Your task to perform on an android device: Open display settings Image 0: 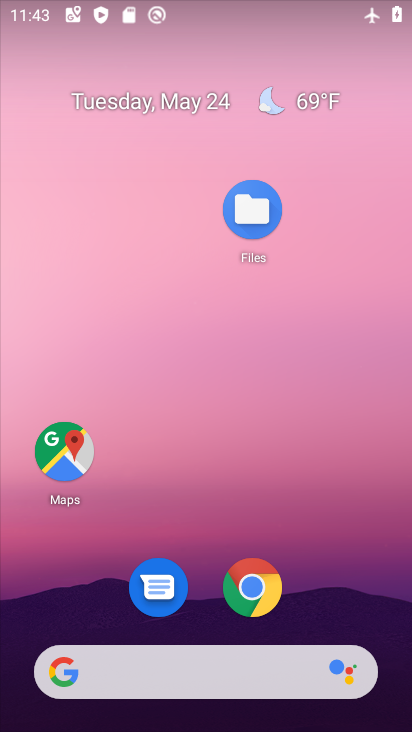
Step 0: drag from (317, 593) to (78, 178)
Your task to perform on an android device: Open display settings Image 1: 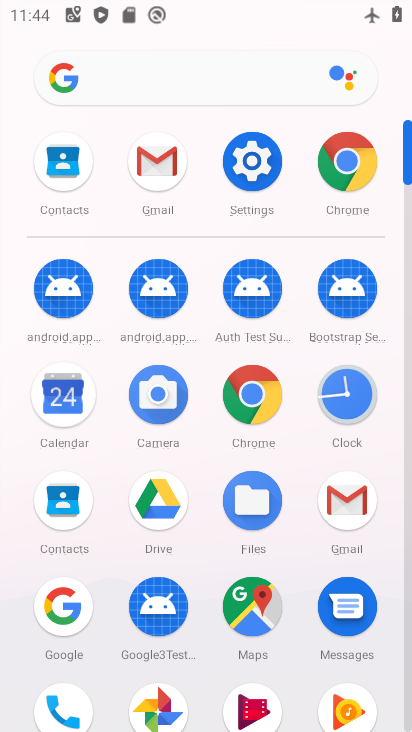
Step 1: click (254, 173)
Your task to perform on an android device: Open display settings Image 2: 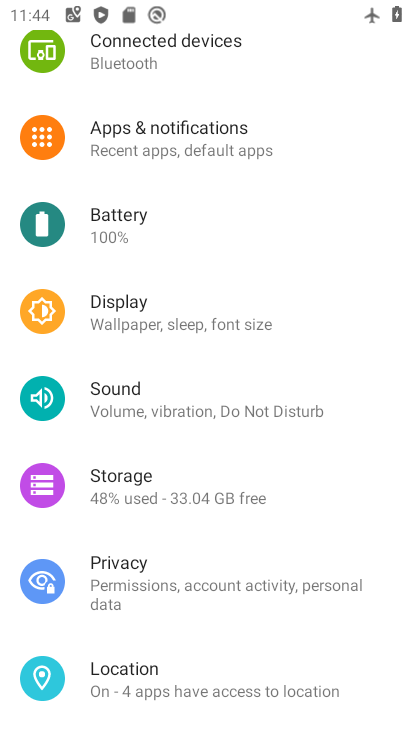
Step 2: click (152, 318)
Your task to perform on an android device: Open display settings Image 3: 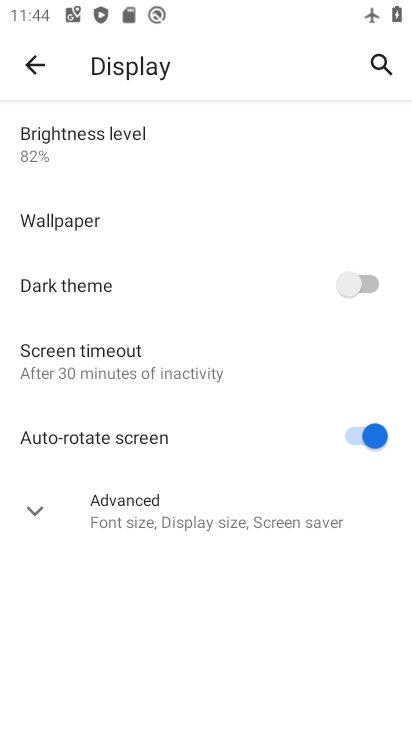
Step 3: click (111, 517)
Your task to perform on an android device: Open display settings Image 4: 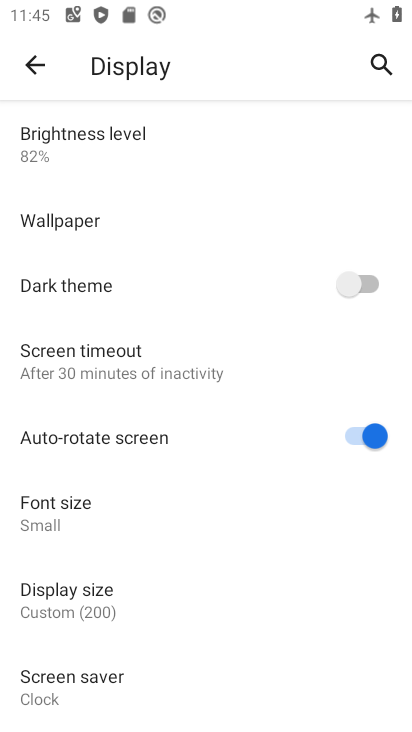
Step 4: task complete